Your task to perform on an android device: What is the news today? Image 0: 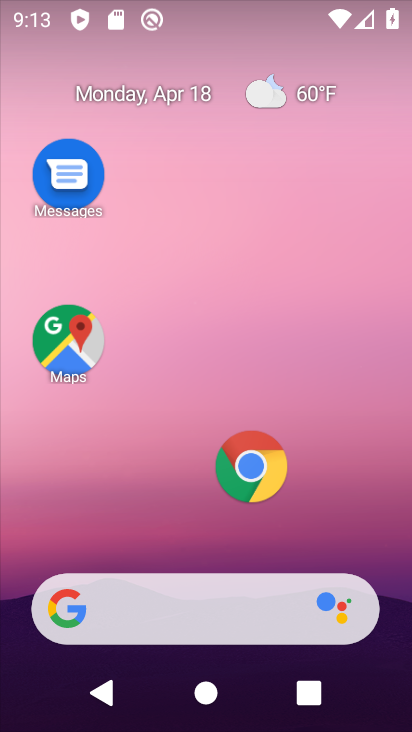
Step 0: drag from (204, 424) to (247, 28)
Your task to perform on an android device: What is the news today? Image 1: 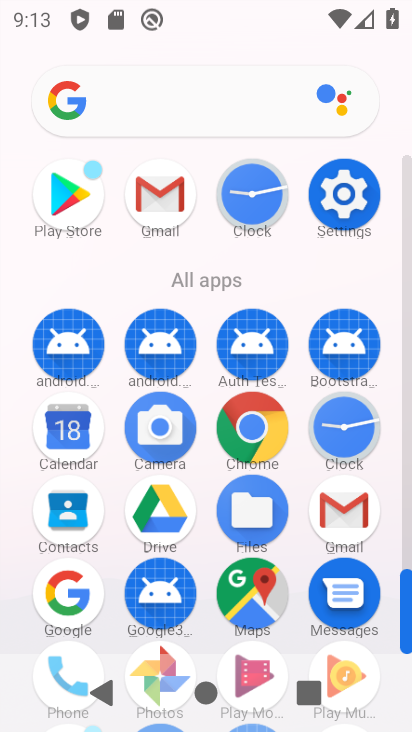
Step 1: click (77, 597)
Your task to perform on an android device: What is the news today? Image 2: 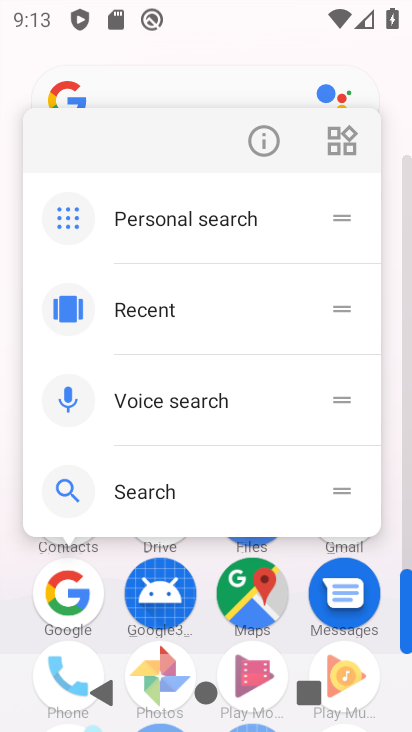
Step 2: click (68, 597)
Your task to perform on an android device: What is the news today? Image 3: 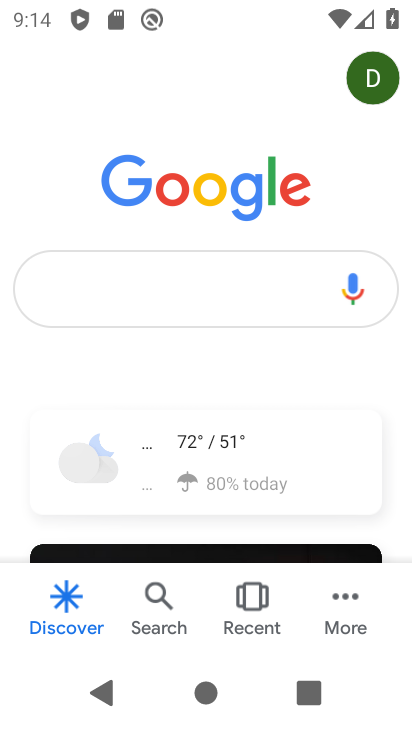
Step 3: task complete